Your task to perform on an android device: Open privacy settings Image 0: 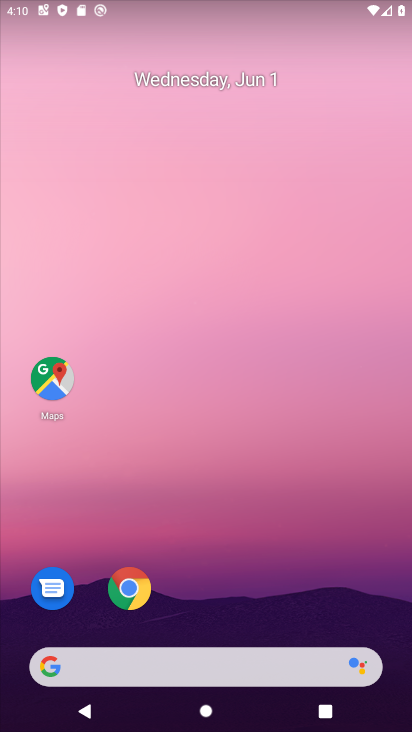
Step 0: drag from (216, 628) to (143, 327)
Your task to perform on an android device: Open privacy settings Image 1: 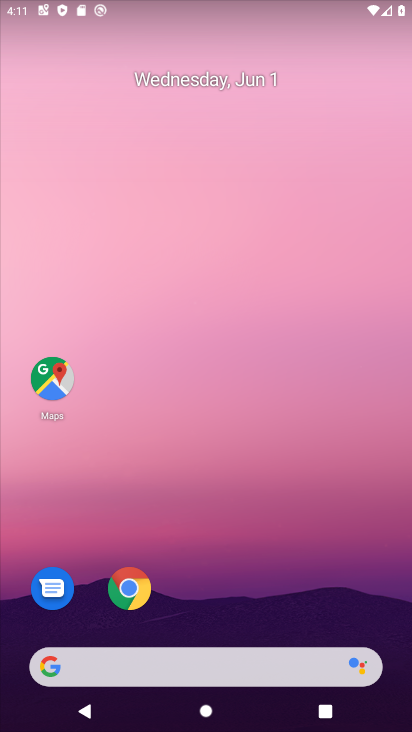
Step 1: drag from (214, 599) to (118, 78)
Your task to perform on an android device: Open privacy settings Image 2: 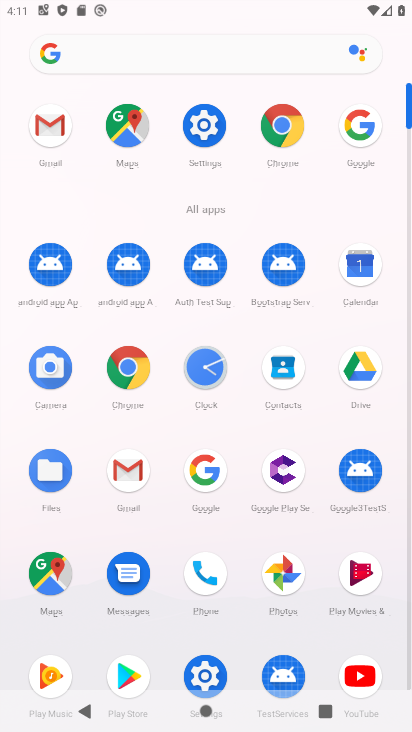
Step 2: click (208, 128)
Your task to perform on an android device: Open privacy settings Image 3: 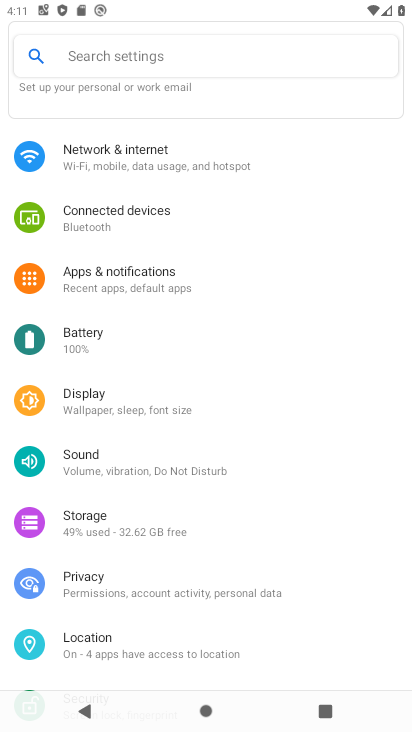
Step 3: drag from (176, 593) to (135, 300)
Your task to perform on an android device: Open privacy settings Image 4: 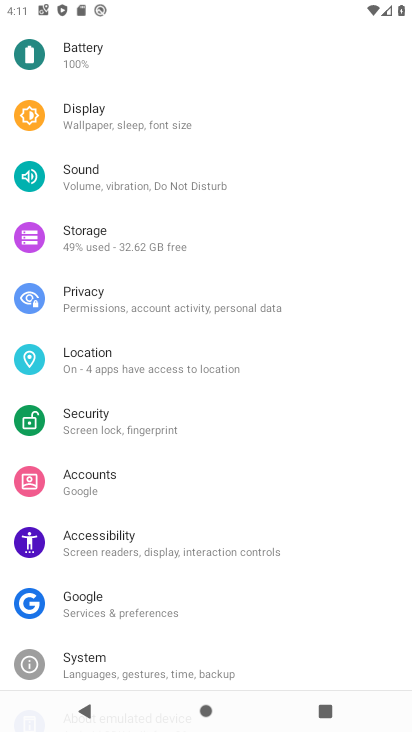
Step 4: click (147, 309)
Your task to perform on an android device: Open privacy settings Image 5: 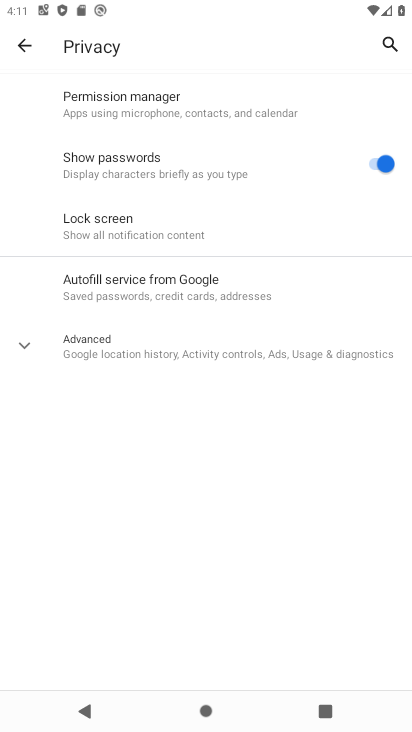
Step 5: task complete